Your task to perform on an android device: Open the web browser Image 0: 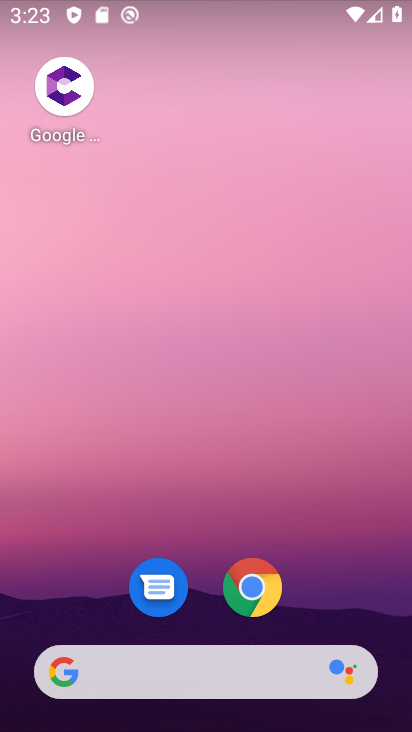
Step 0: drag from (315, 607) to (272, 30)
Your task to perform on an android device: Open the web browser Image 1: 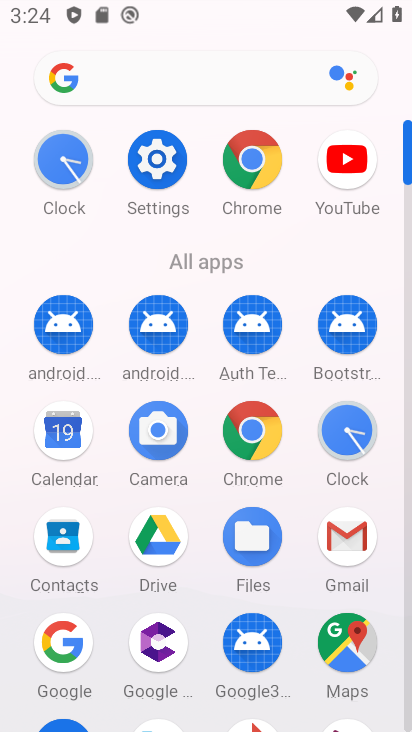
Step 1: drag from (11, 519) to (19, 192)
Your task to perform on an android device: Open the web browser Image 2: 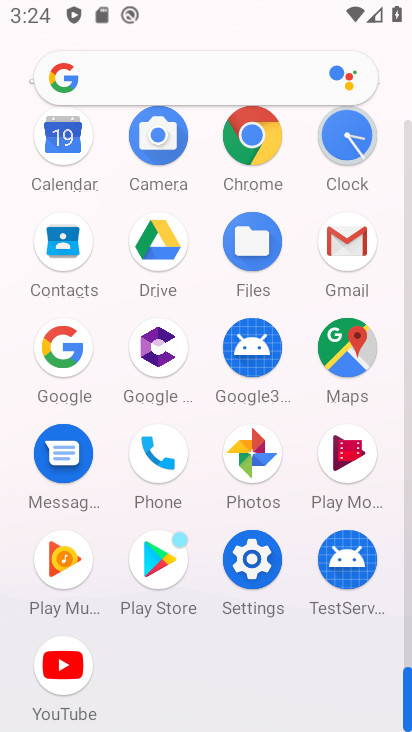
Step 2: click (252, 134)
Your task to perform on an android device: Open the web browser Image 3: 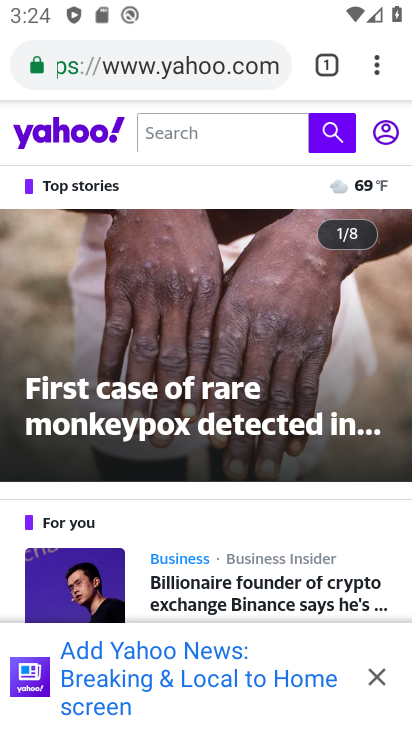
Step 3: task complete